Your task to perform on an android device: When is my next appointment? Image 0: 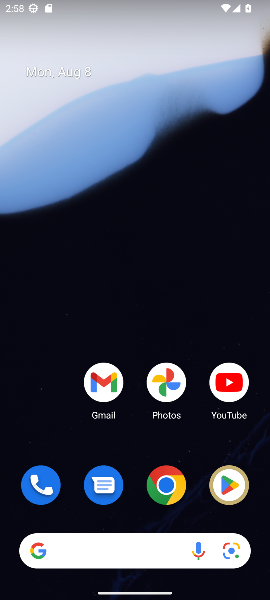
Step 0: drag from (156, 556) to (96, 163)
Your task to perform on an android device: When is my next appointment? Image 1: 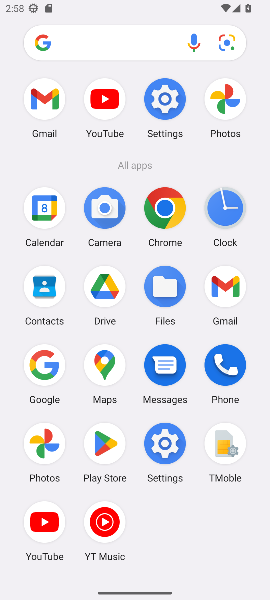
Step 1: click (45, 208)
Your task to perform on an android device: When is my next appointment? Image 2: 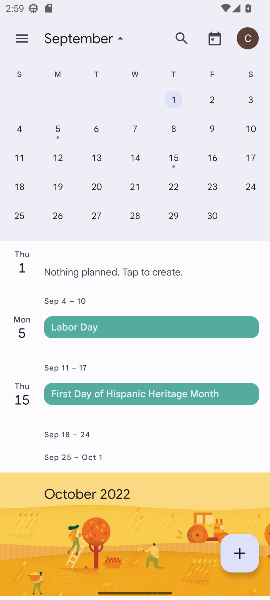
Step 2: task complete